Your task to perform on an android device: toggle priority inbox in the gmail app Image 0: 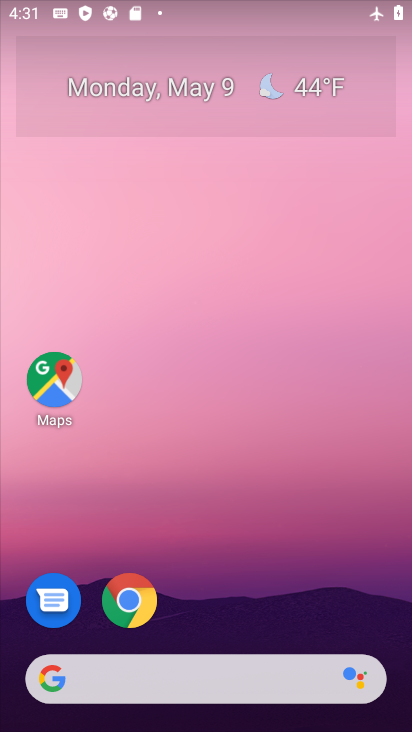
Step 0: drag from (273, 558) to (277, 57)
Your task to perform on an android device: toggle priority inbox in the gmail app Image 1: 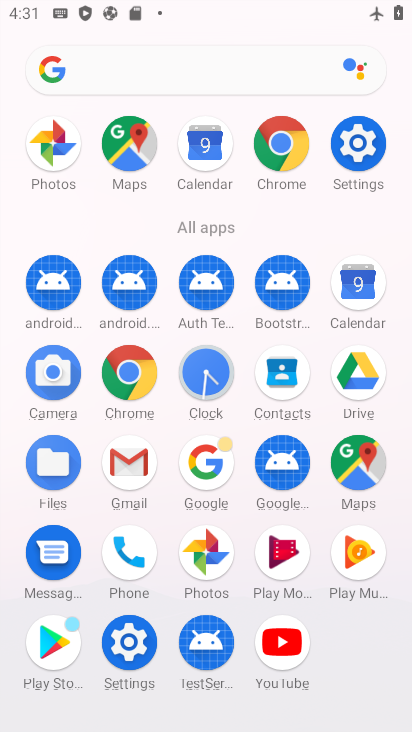
Step 1: click (133, 463)
Your task to perform on an android device: toggle priority inbox in the gmail app Image 2: 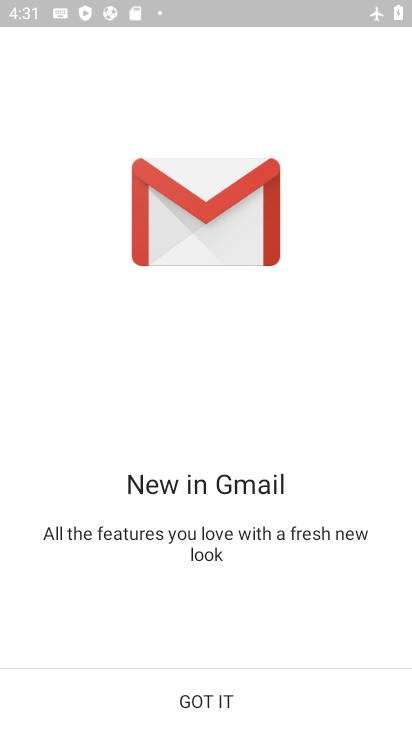
Step 2: click (218, 696)
Your task to perform on an android device: toggle priority inbox in the gmail app Image 3: 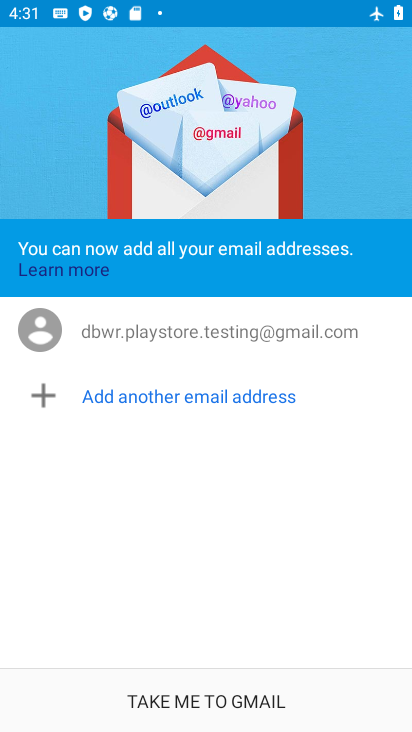
Step 3: click (217, 686)
Your task to perform on an android device: toggle priority inbox in the gmail app Image 4: 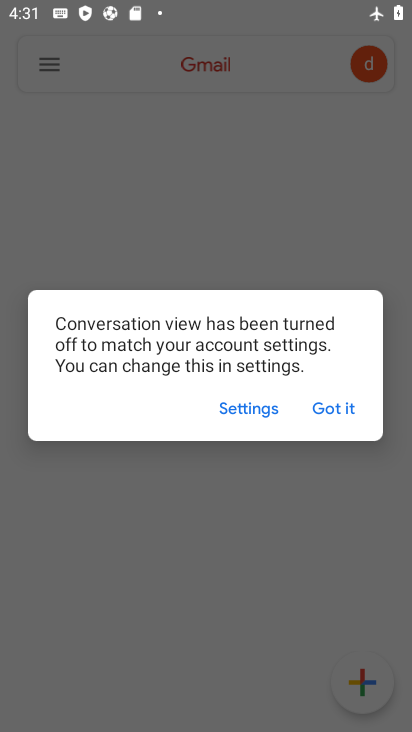
Step 4: click (335, 410)
Your task to perform on an android device: toggle priority inbox in the gmail app Image 5: 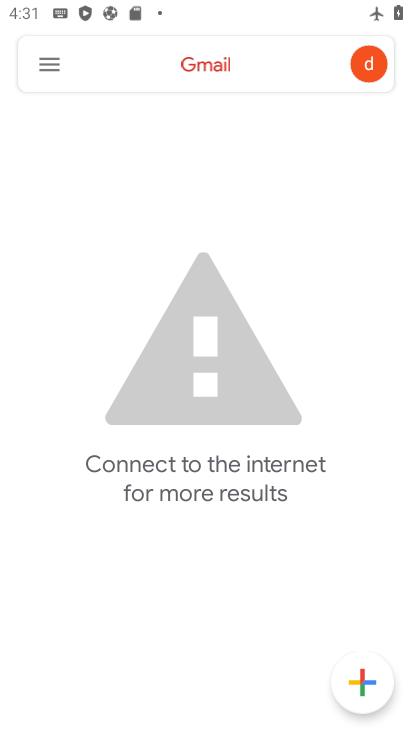
Step 5: click (42, 57)
Your task to perform on an android device: toggle priority inbox in the gmail app Image 6: 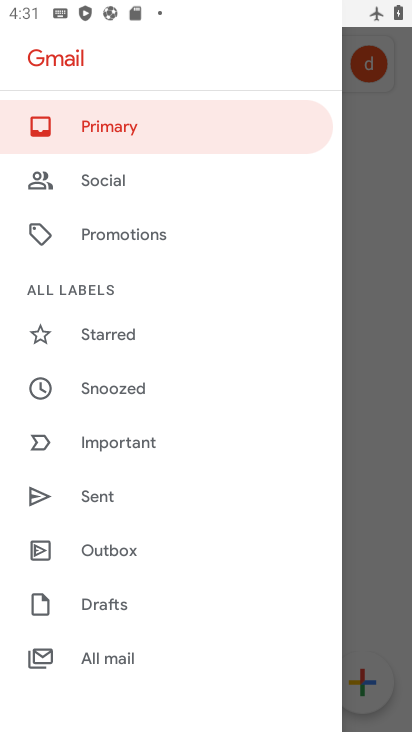
Step 6: drag from (202, 639) to (269, 120)
Your task to perform on an android device: toggle priority inbox in the gmail app Image 7: 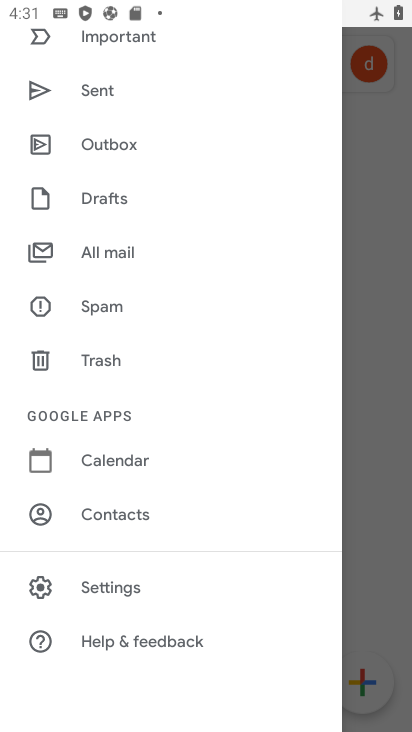
Step 7: click (113, 581)
Your task to perform on an android device: toggle priority inbox in the gmail app Image 8: 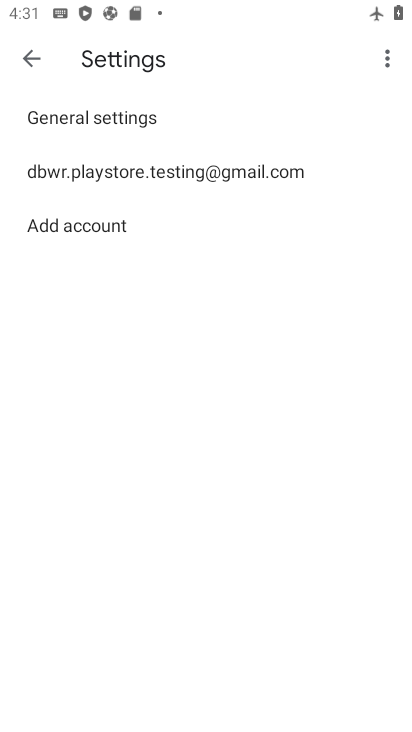
Step 8: click (120, 164)
Your task to perform on an android device: toggle priority inbox in the gmail app Image 9: 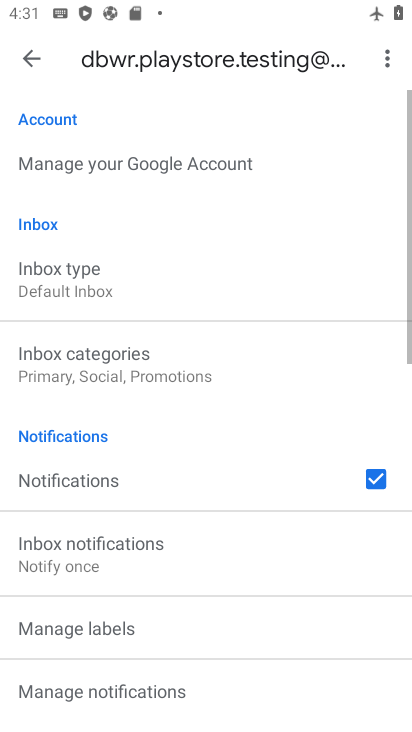
Step 9: click (83, 273)
Your task to perform on an android device: toggle priority inbox in the gmail app Image 10: 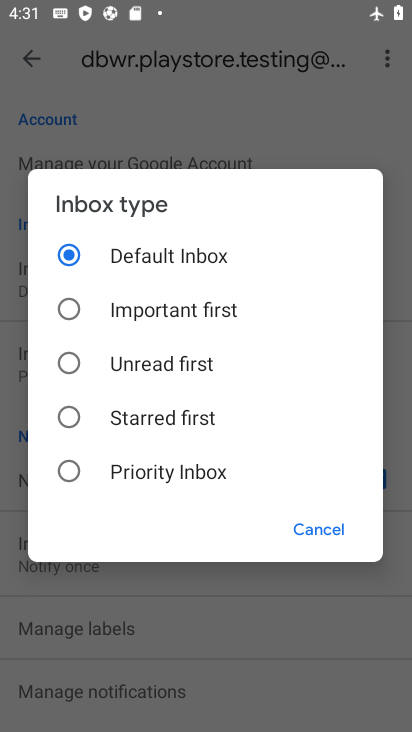
Step 10: click (67, 462)
Your task to perform on an android device: toggle priority inbox in the gmail app Image 11: 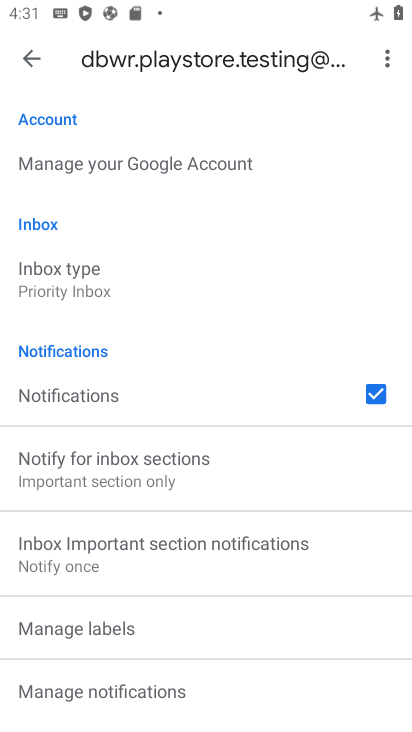
Step 11: task complete